Your task to perform on an android device: turn on sleep mode Image 0: 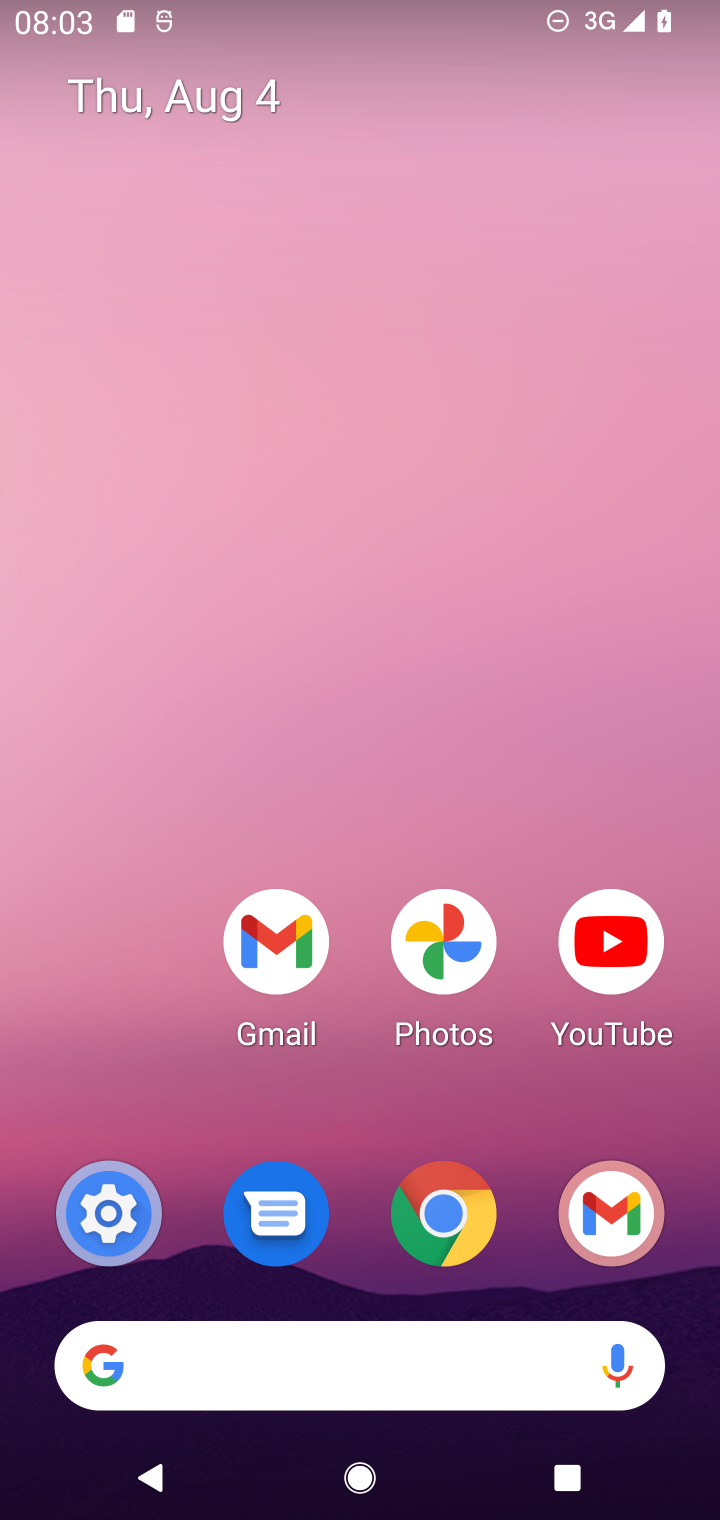
Step 0: press home button
Your task to perform on an android device: turn on sleep mode Image 1: 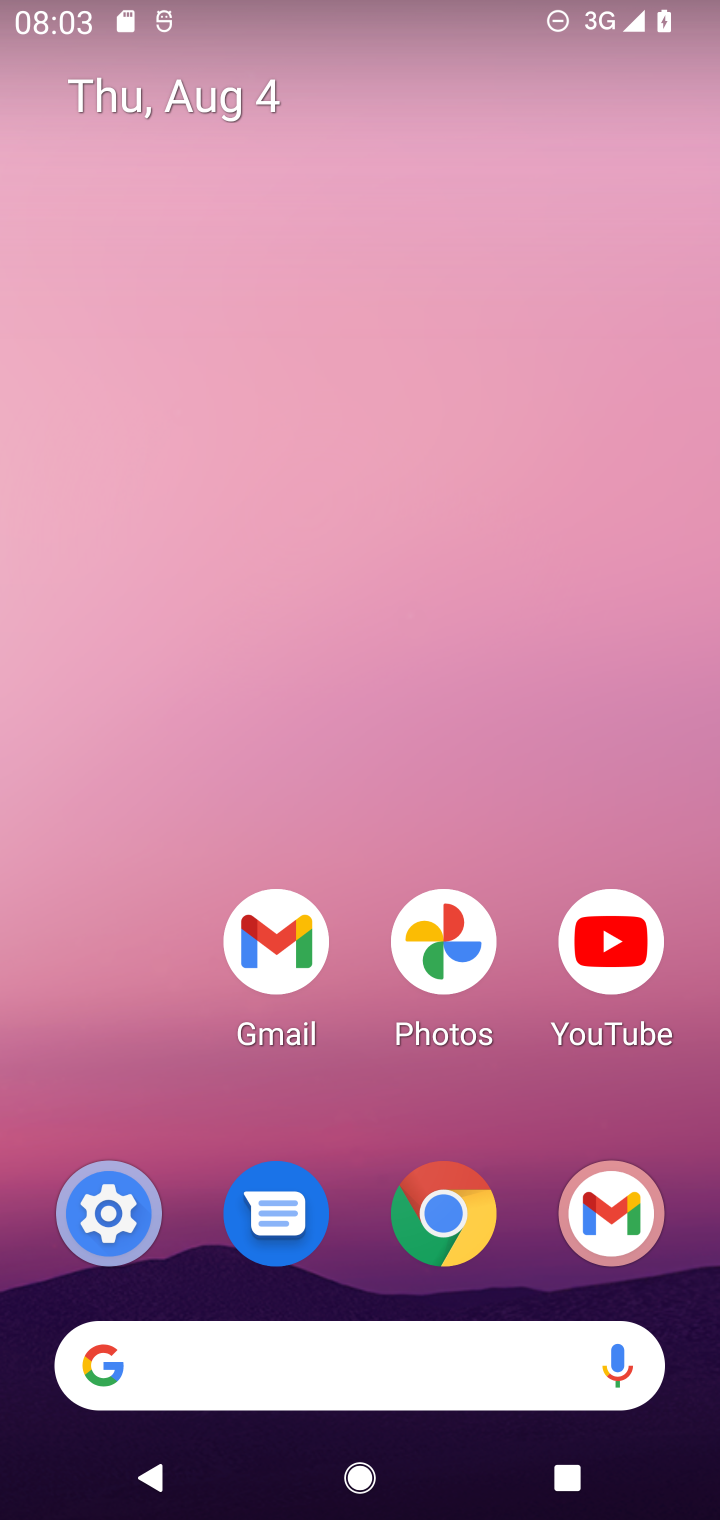
Step 1: drag from (165, 1149) to (160, 479)
Your task to perform on an android device: turn on sleep mode Image 2: 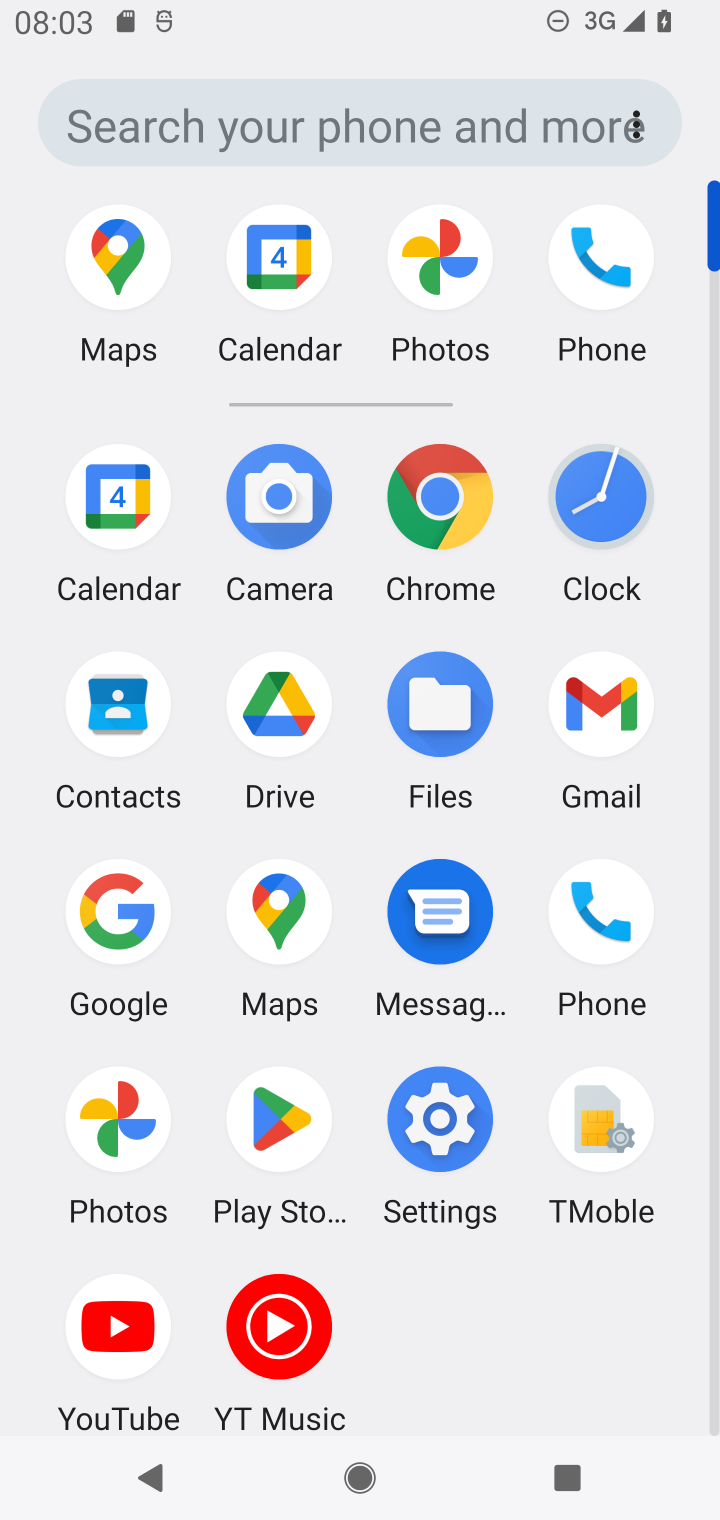
Step 2: click (453, 1120)
Your task to perform on an android device: turn on sleep mode Image 3: 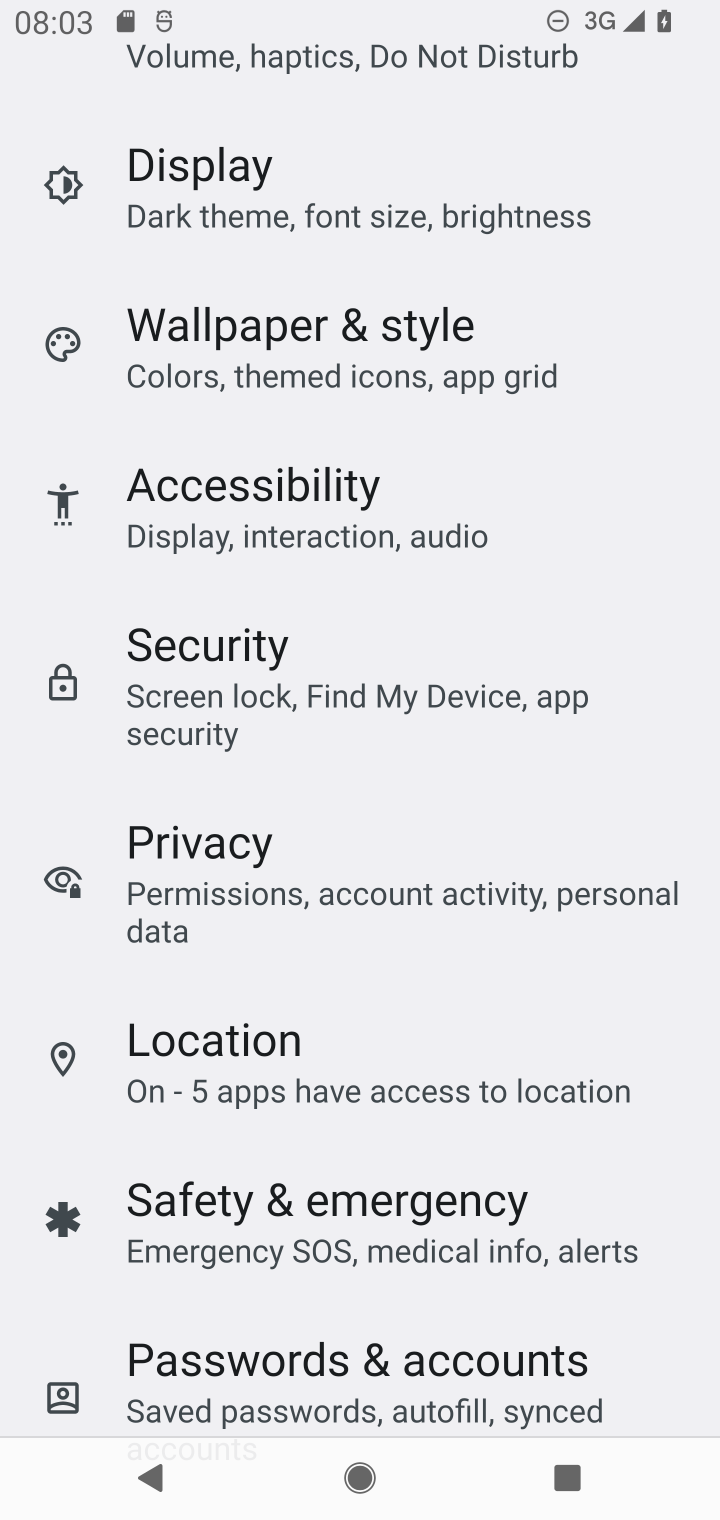
Step 3: drag from (584, 1205) to (584, 916)
Your task to perform on an android device: turn on sleep mode Image 4: 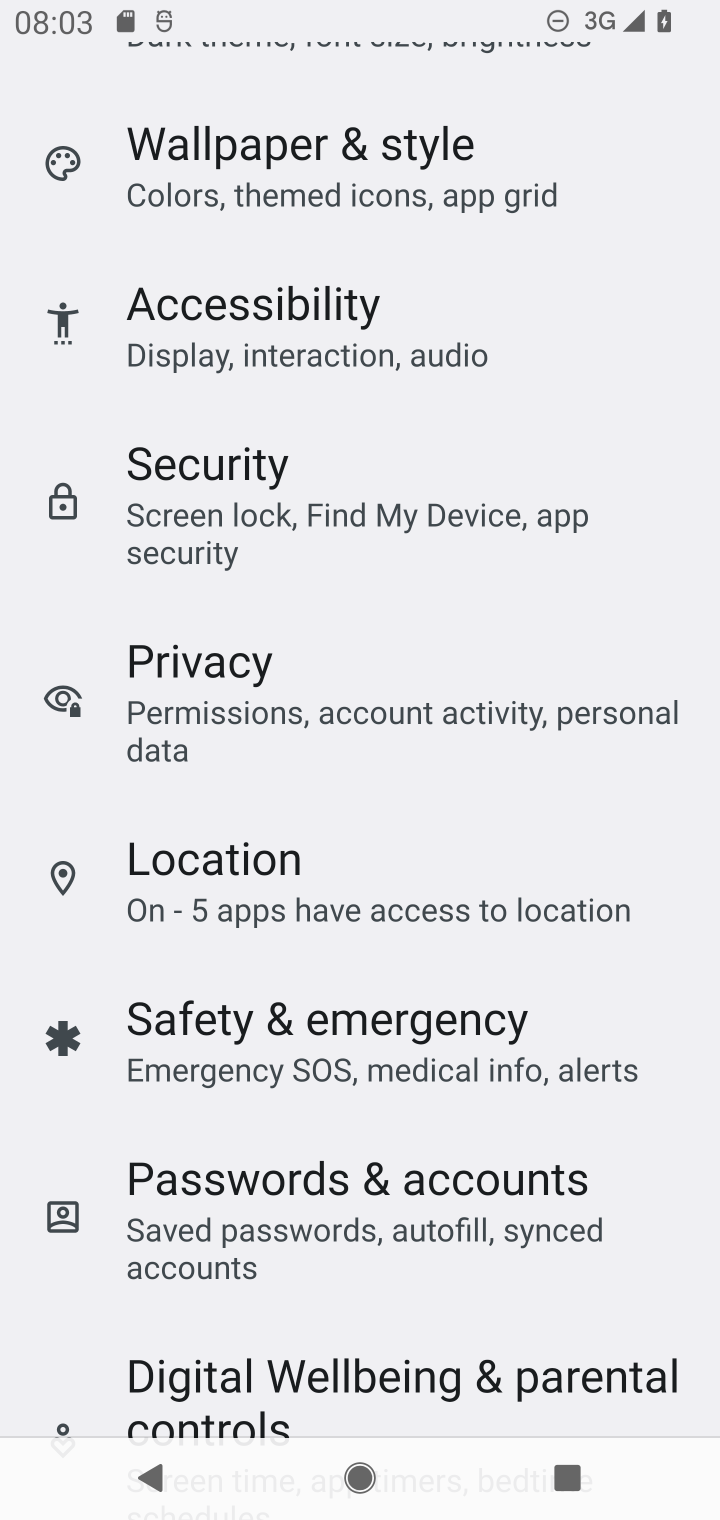
Step 4: drag from (653, 1291) to (647, 967)
Your task to perform on an android device: turn on sleep mode Image 5: 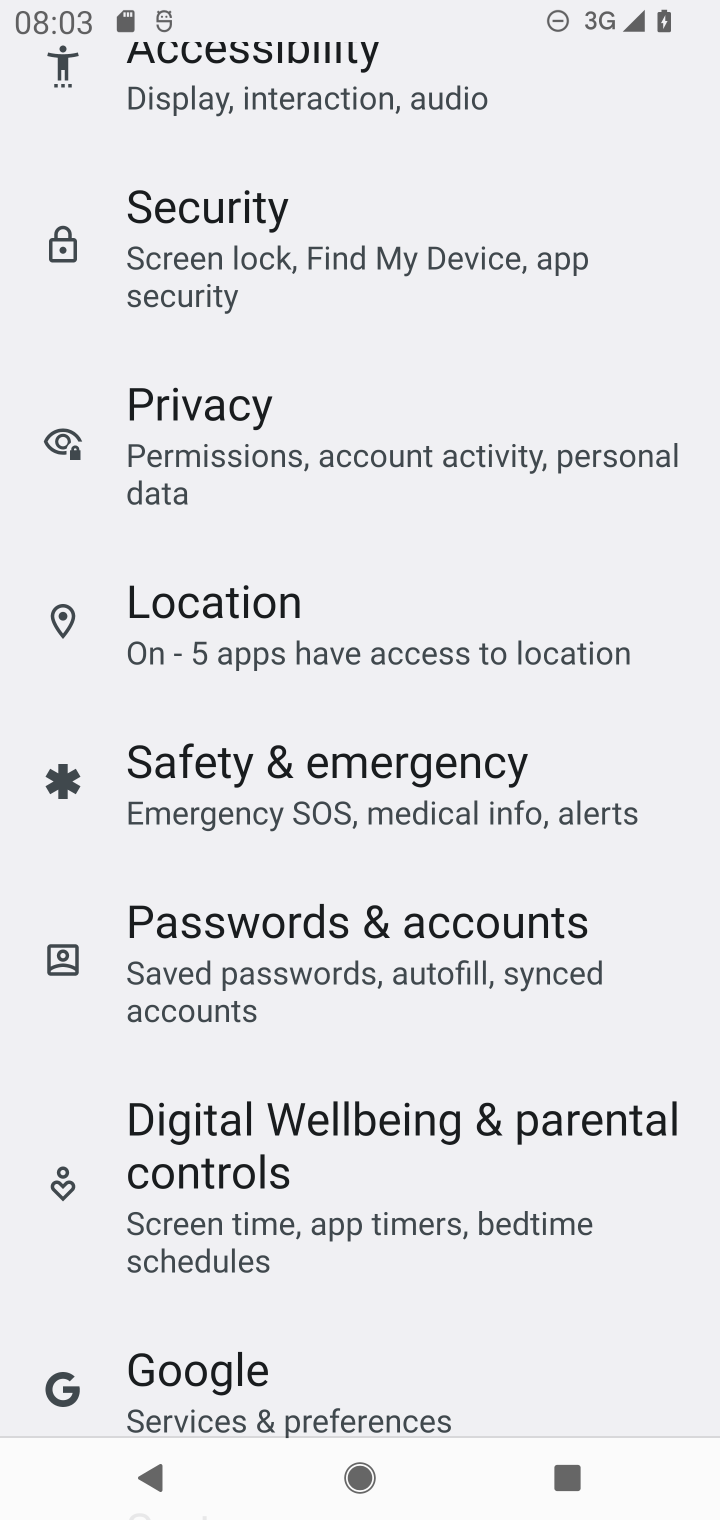
Step 5: drag from (592, 1305) to (592, 1033)
Your task to perform on an android device: turn on sleep mode Image 6: 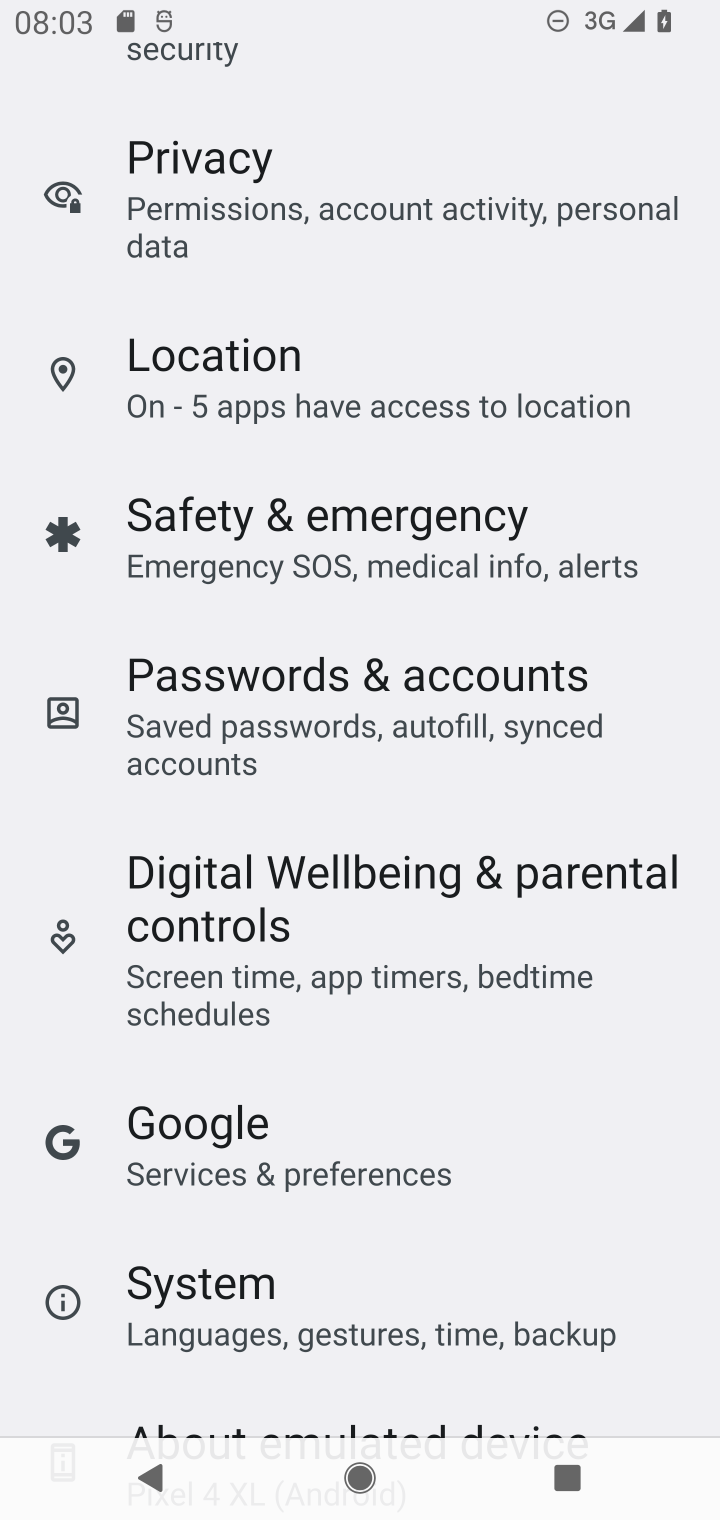
Step 6: drag from (594, 1157) to (598, 925)
Your task to perform on an android device: turn on sleep mode Image 7: 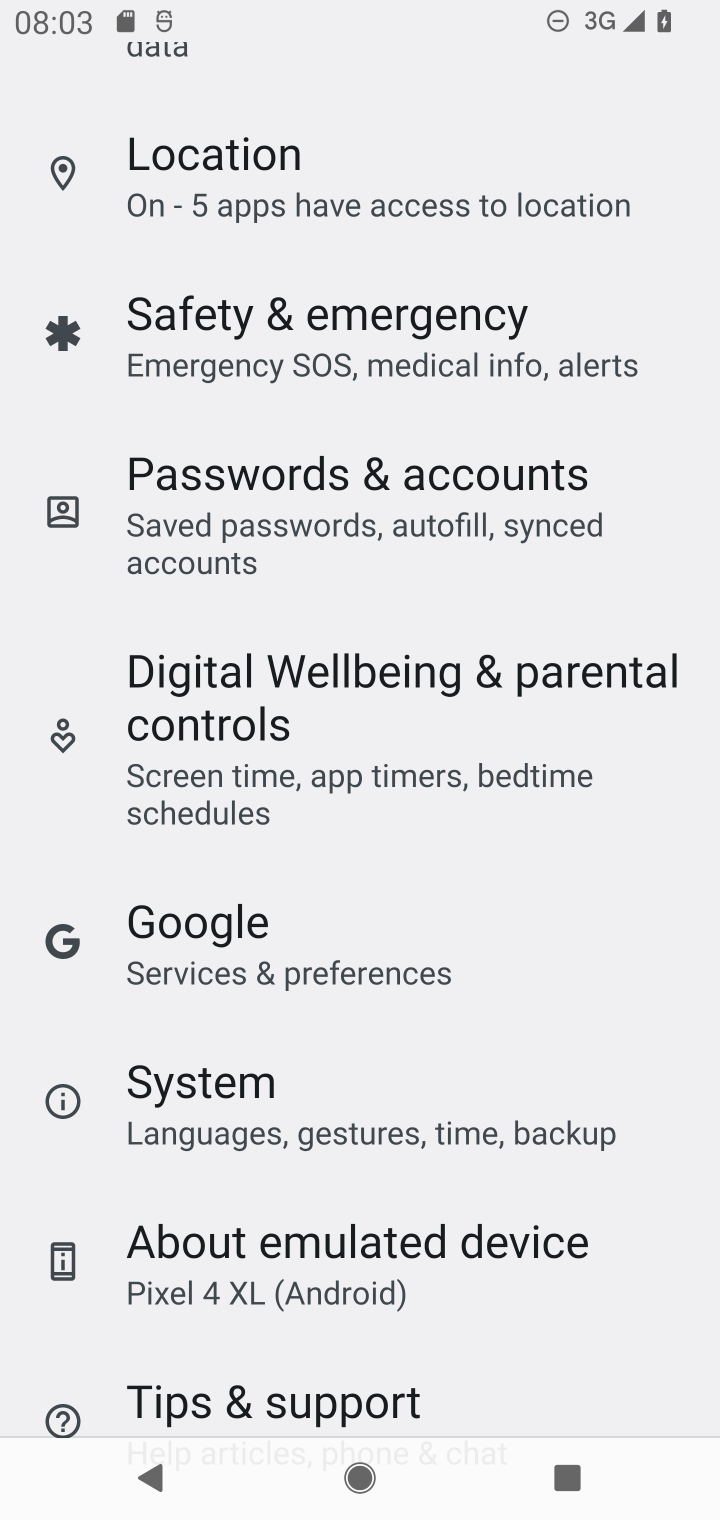
Step 7: drag from (594, 1079) to (594, 859)
Your task to perform on an android device: turn on sleep mode Image 8: 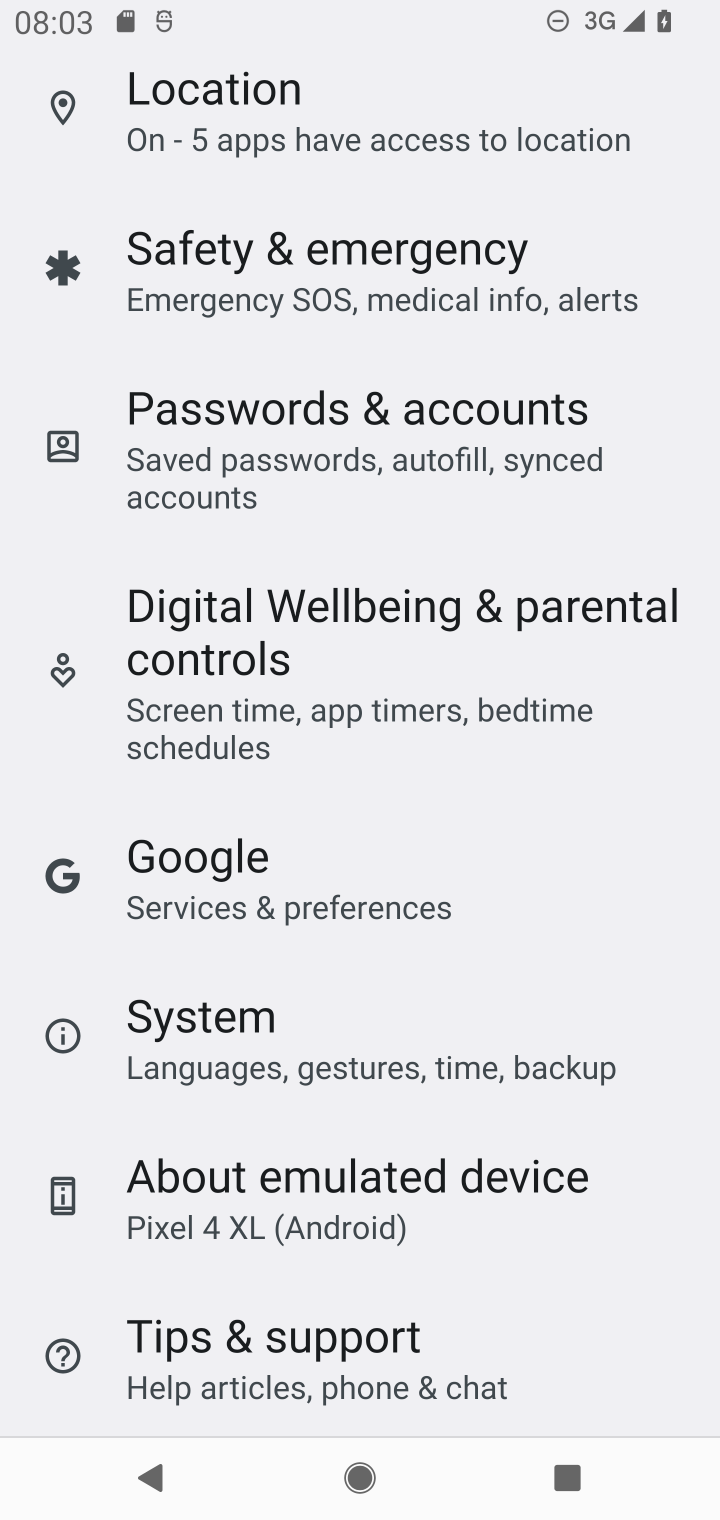
Step 8: drag from (603, 736) to (598, 1055)
Your task to perform on an android device: turn on sleep mode Image 9: 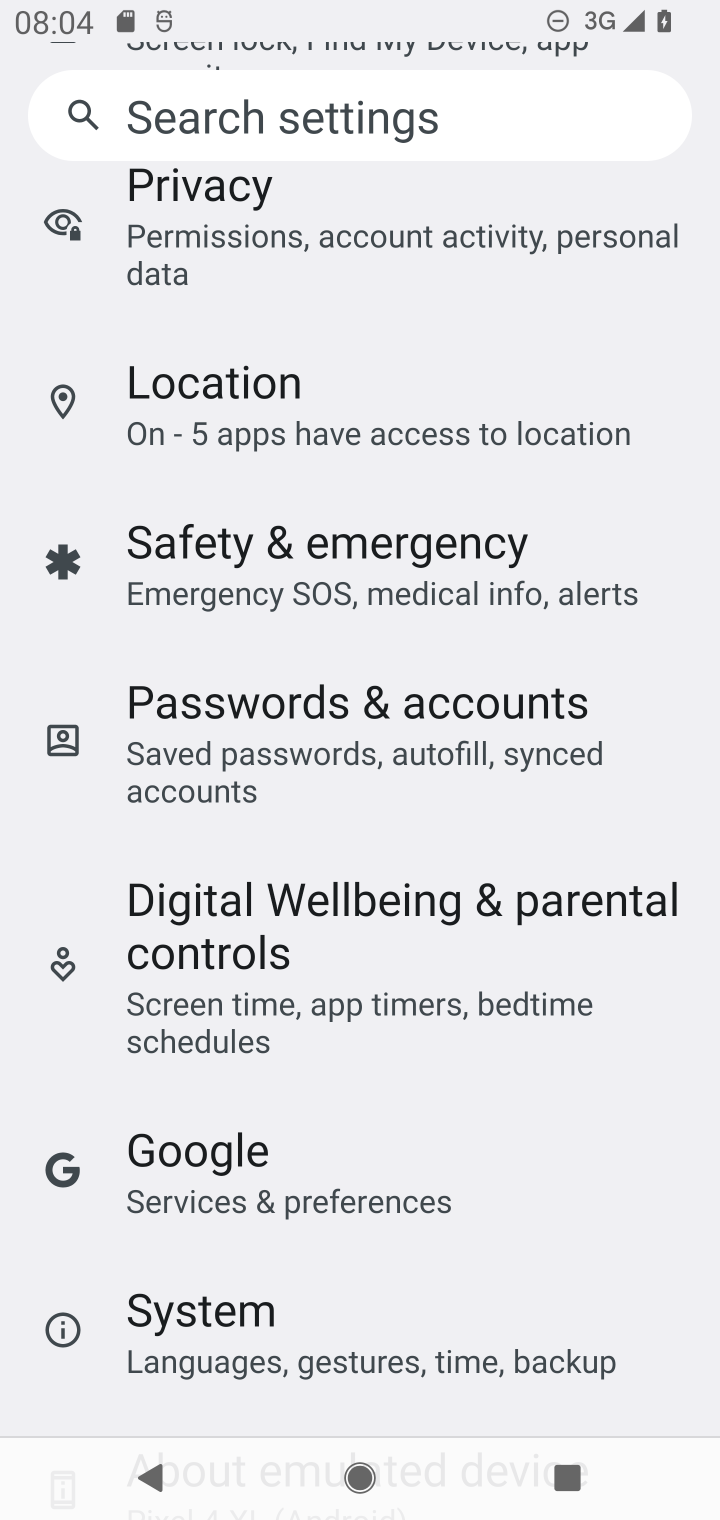
Step 9: drag from (615, 505) to (615, 875)
Your task to perform on an android device: turn on sleep mode Image 10: 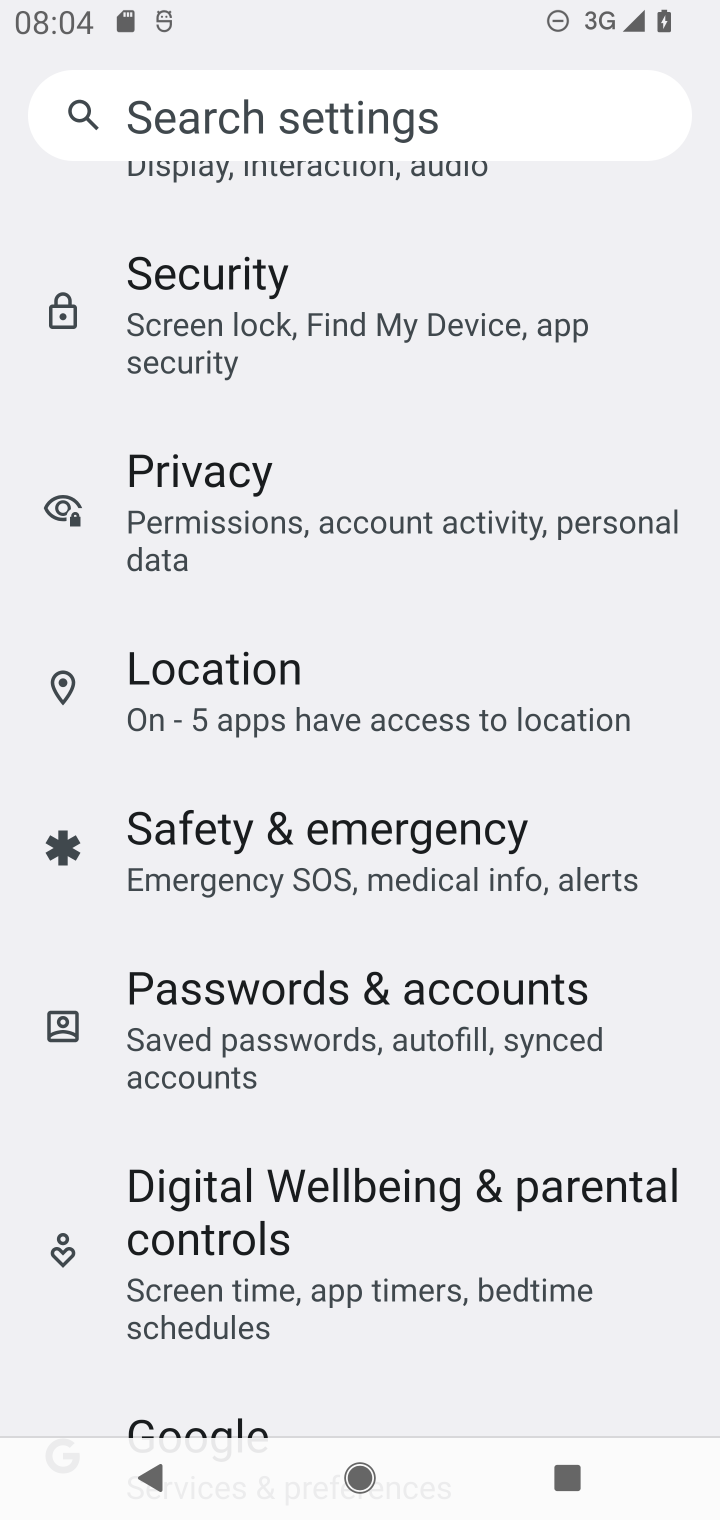
Step 10: drag from (606, 394) to (607, 749)
Your task to perform on an android device: turn on sleep mode Image 11: 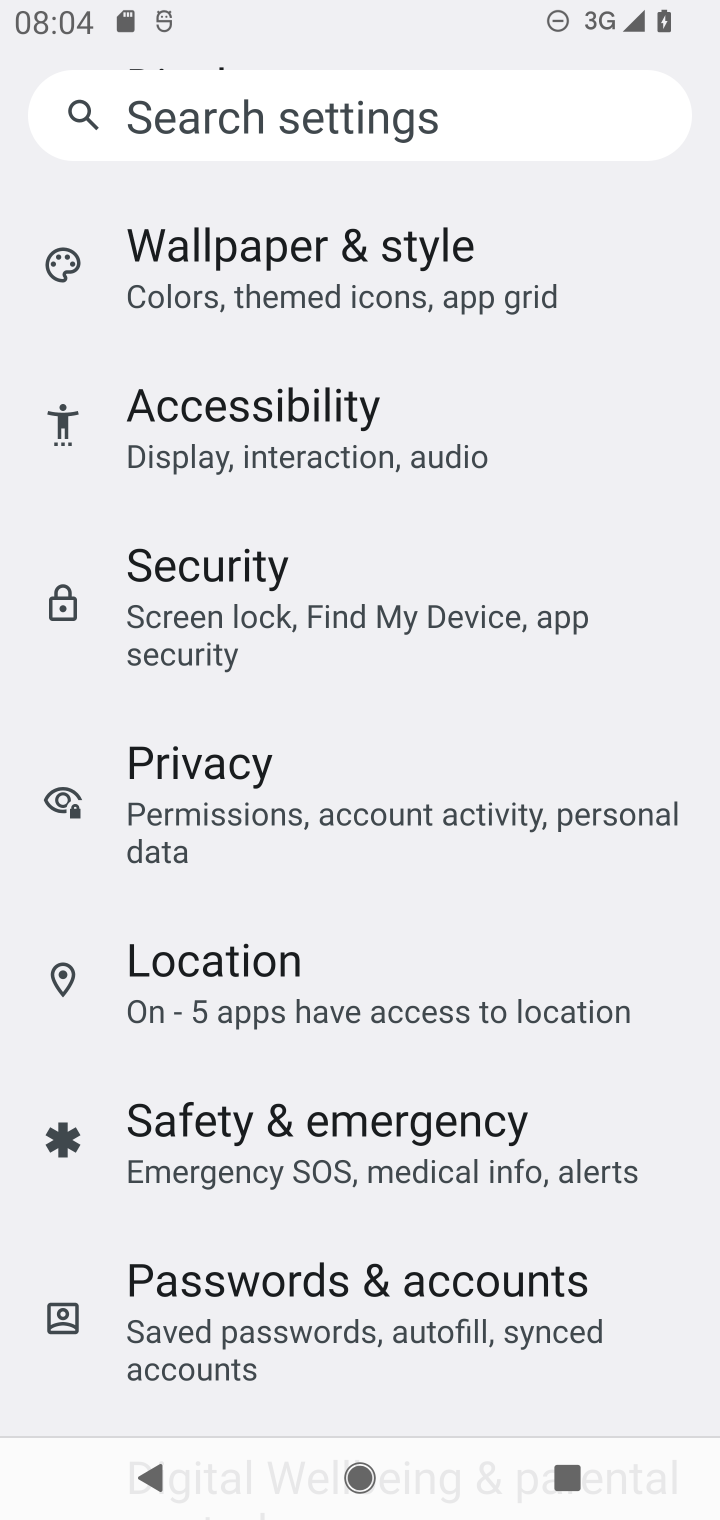
Step 11: drag from (599, 384) to (595, 788)
Your task to perform on an android device: turn on sleep mode Image 12: 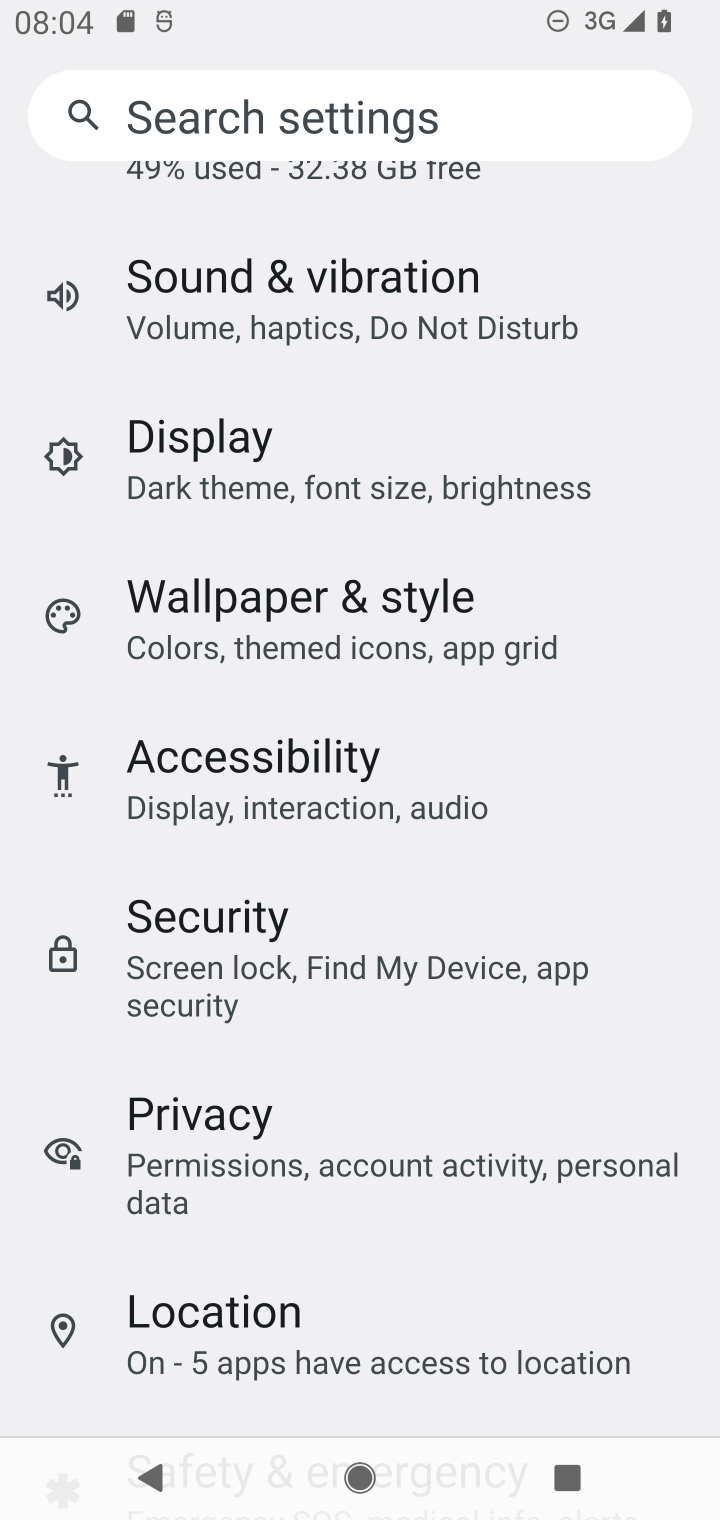
Step 12: drag from (629, 335) to (637, 772)
Your task to perform on an android device: turn on sleep mode Image 13: 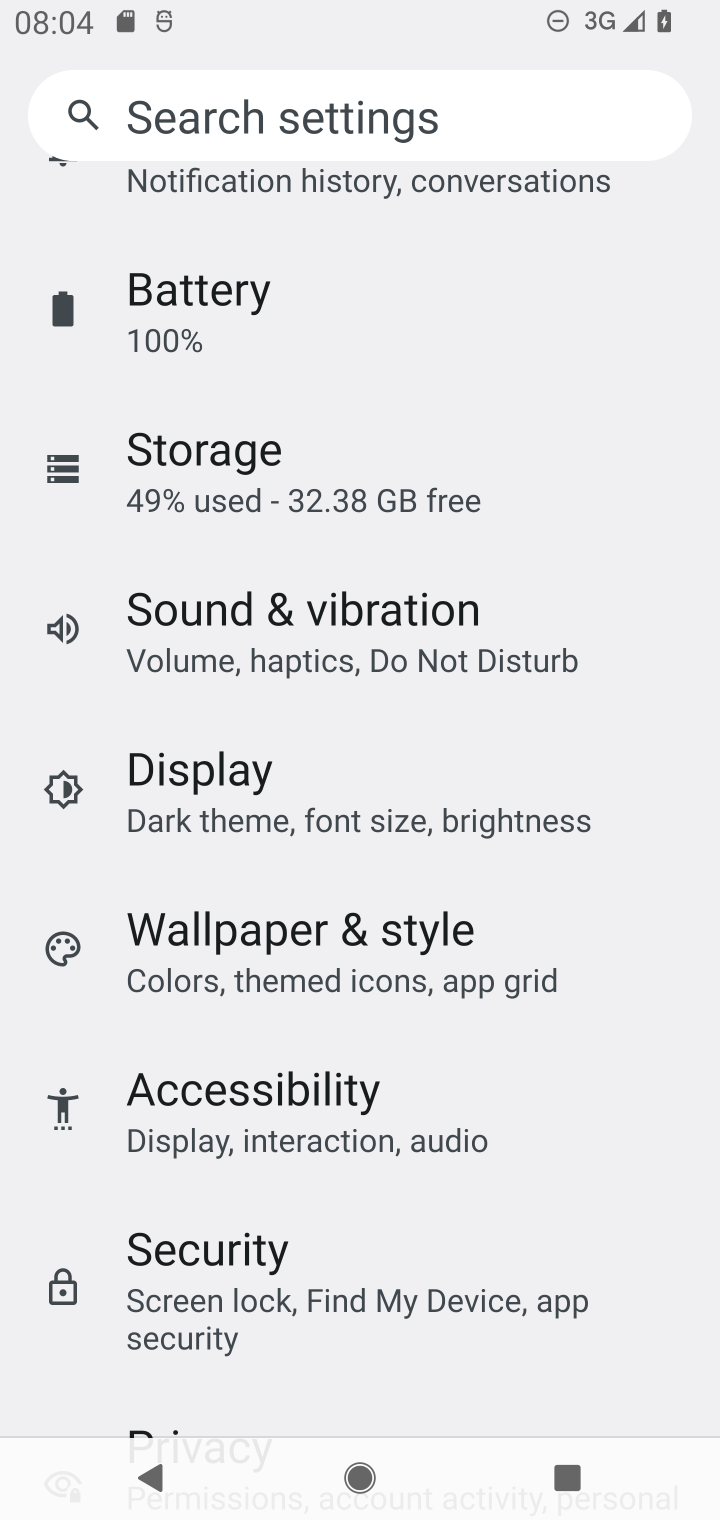
Step 13: drag from (609, 276) to (607, 799)
Your task to perform on an android device: turn on sleep mode Image 14: 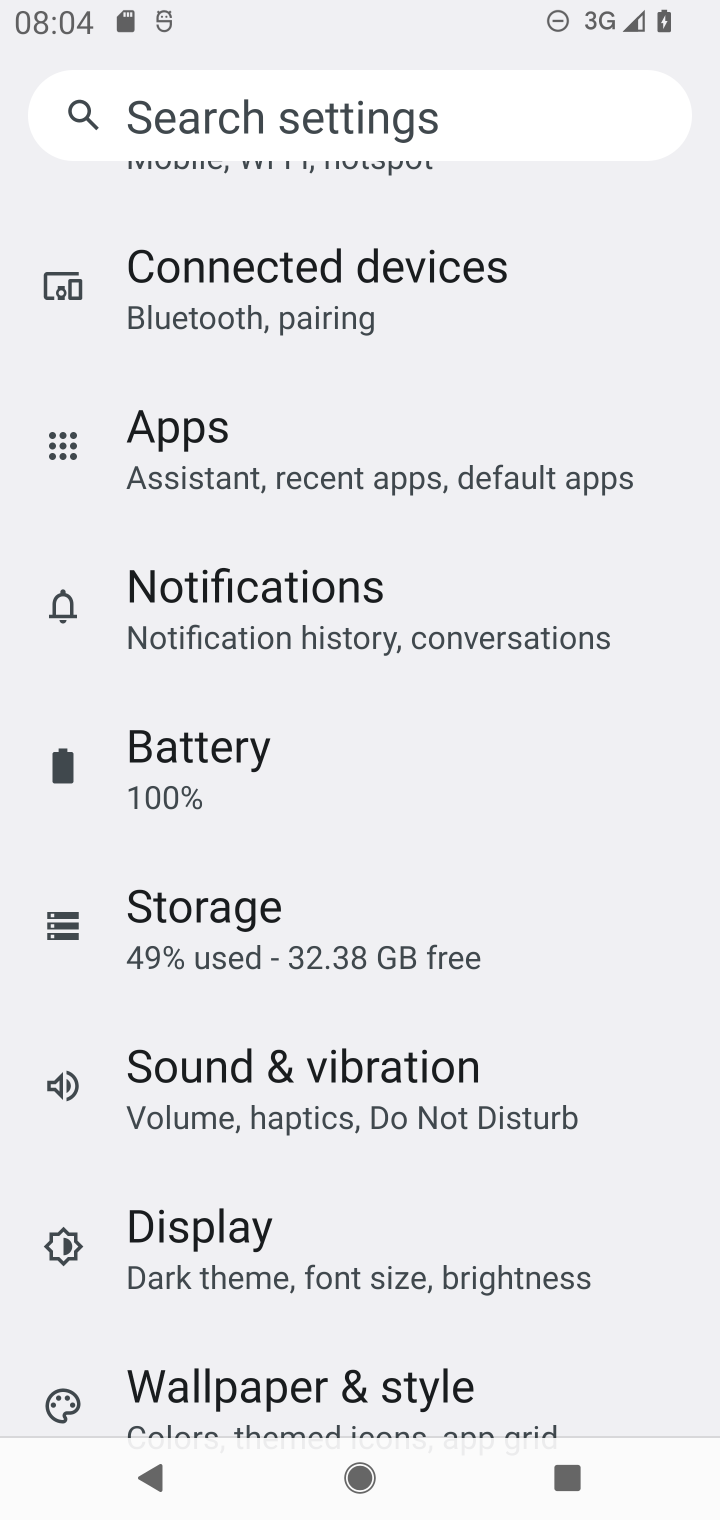
Step 14: drag from (572, 306) to (583, 764)
Your task to perform on an android device: turn on sleep mode Image 15: 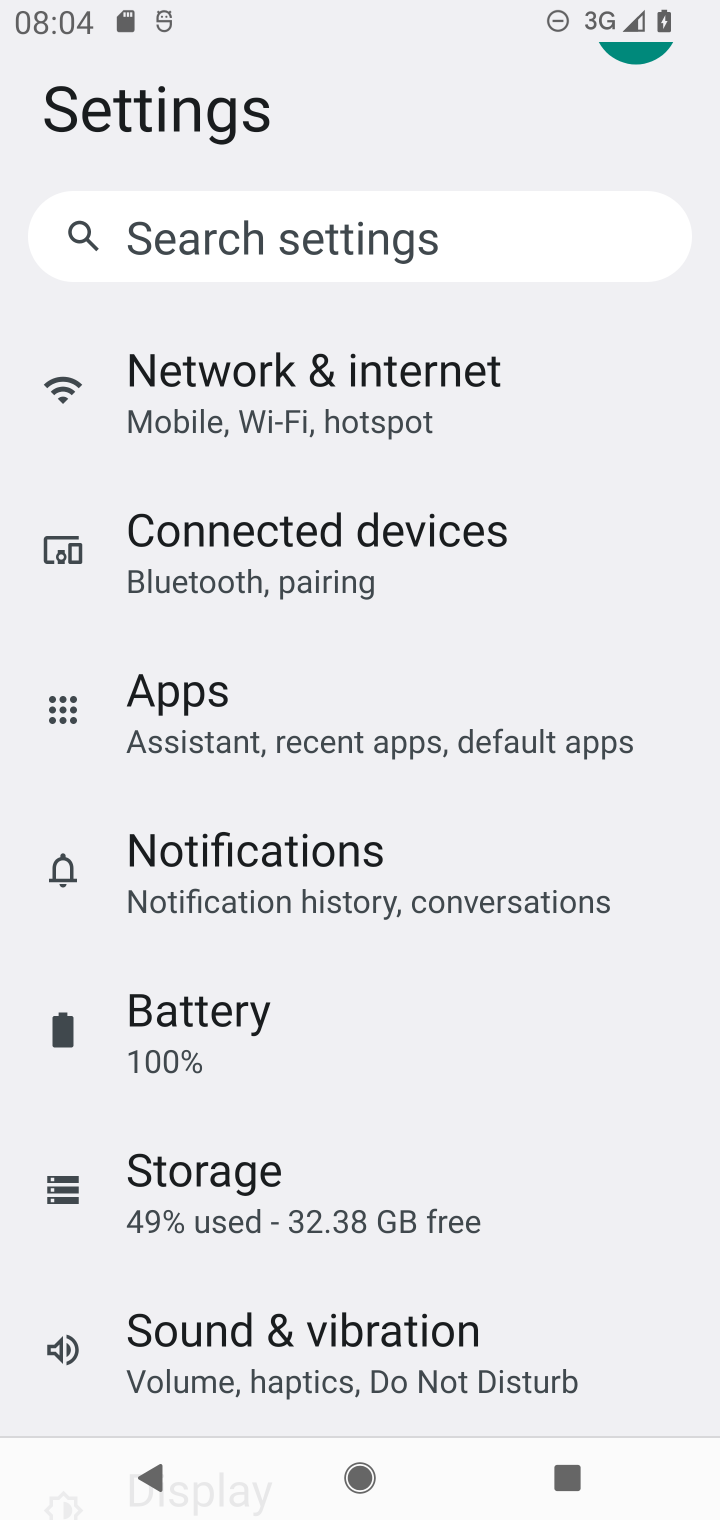
Step 15: drag from (575, 307) to (608, 702)
Your task to perform on an android device: turn on sleep mode Image 16: 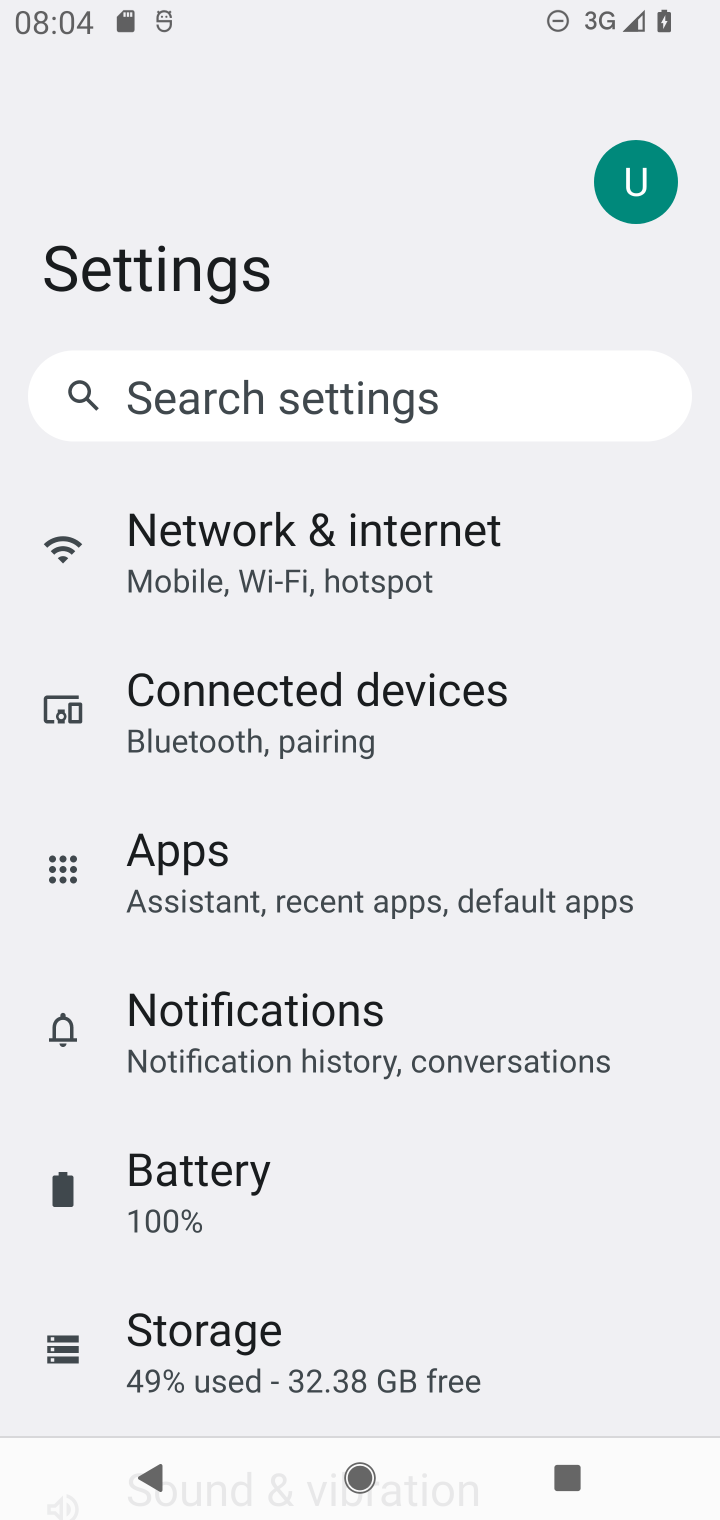
Step 16: drag from (546, 1257) to (546, 866)
Your task to perform on an android device: turn on sleep mode Image 17: 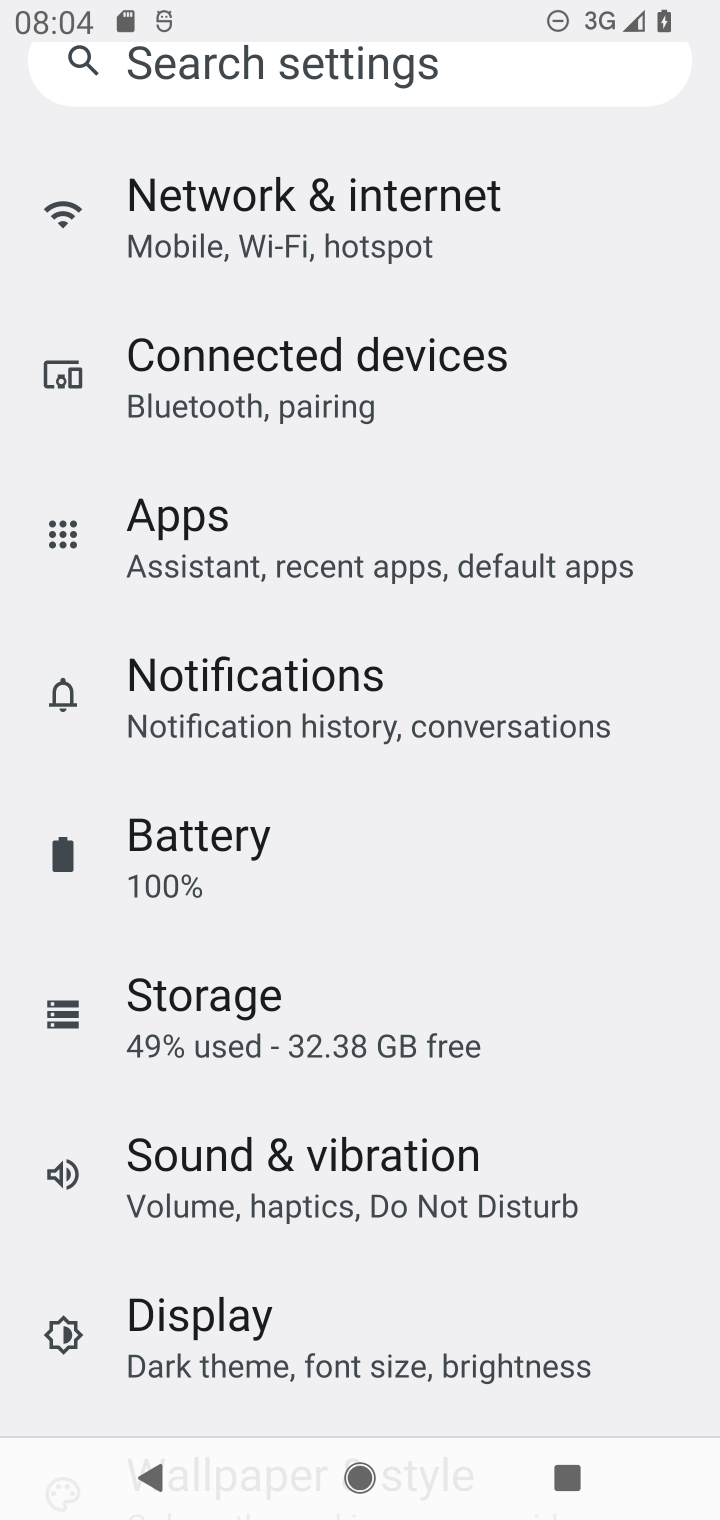
Step 17: click (533, 1363)
Your task to perform on an android device: turn on sleep mode Image 18: 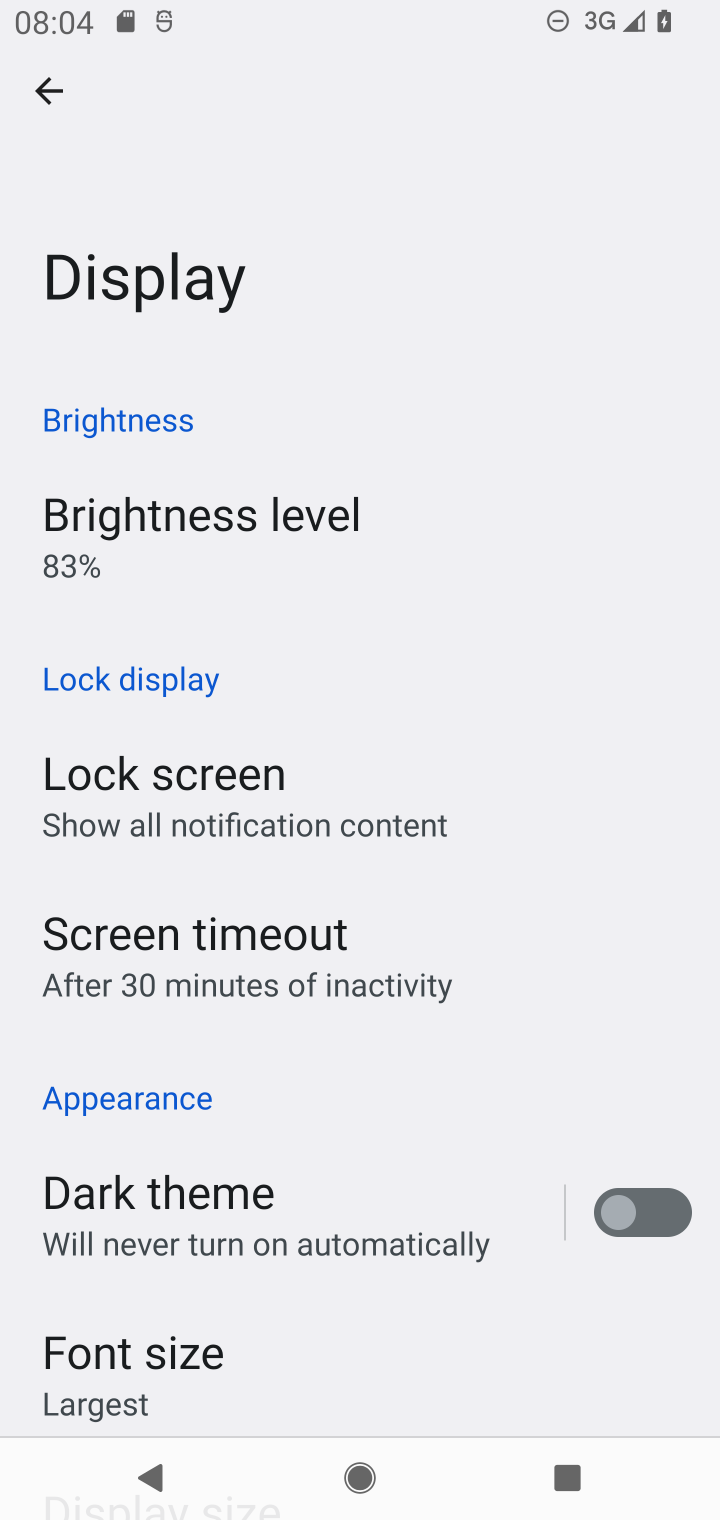
Step 18: task complete